Your task to perform on an android device: Search for Italian restaurants on Maps Image 0: 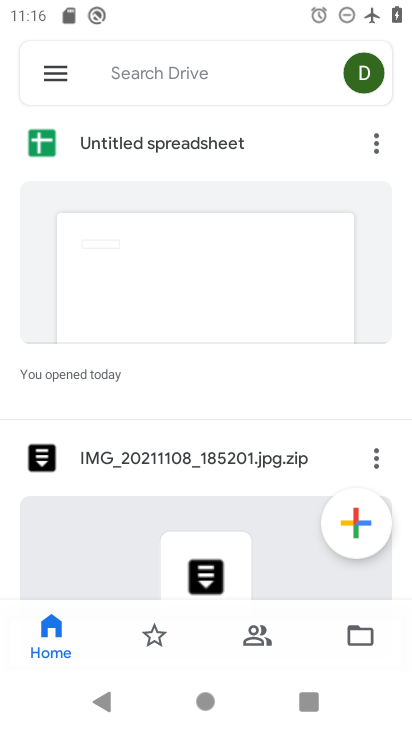
Step 0: press home button
Your task to perform on an android device: Search for Italian restaurants on Maps Image 1: 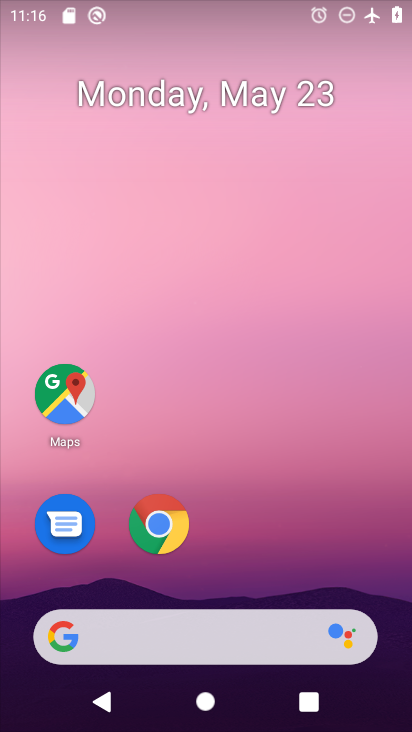
Step 1: click (78, 414)
Your task to perform on an android device: Search for Italian restaurants on Maps Image 2: 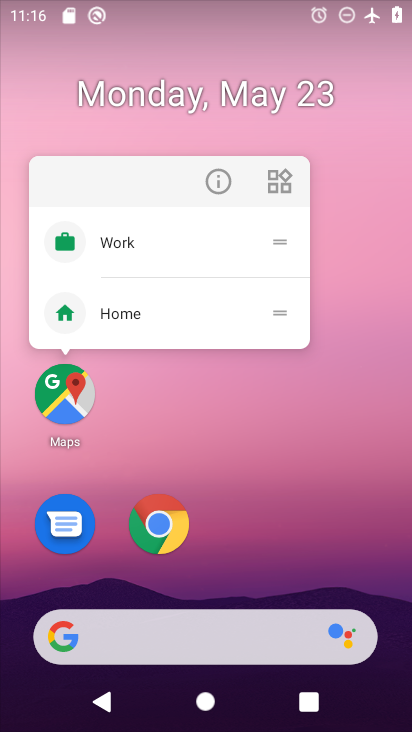
Step 2: click (76, 386)
Your task to perform on an android device: Search for Italian restaurants on Maps Image 3: 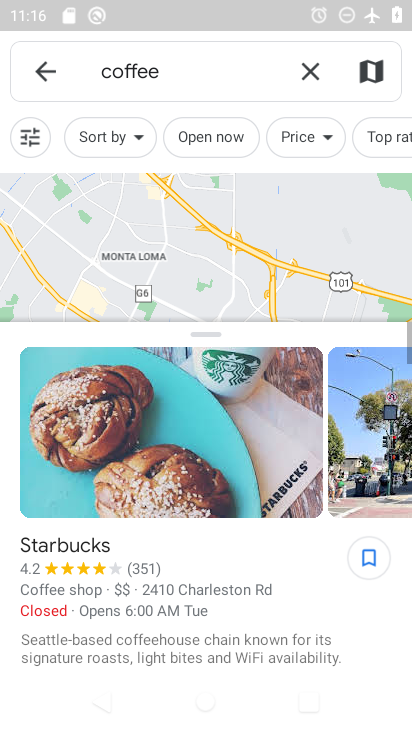
Step 3: click (304, 73)
Your task to perform on an android device: Search for Italian restaurants on Maps Image 4: 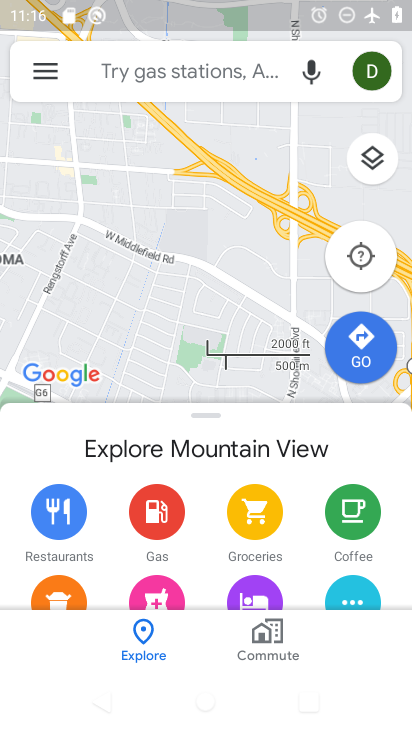
Step 4: click (193, 80)
Your task to perform on an android device: Search for Italian restaurants on Maps Image 5: 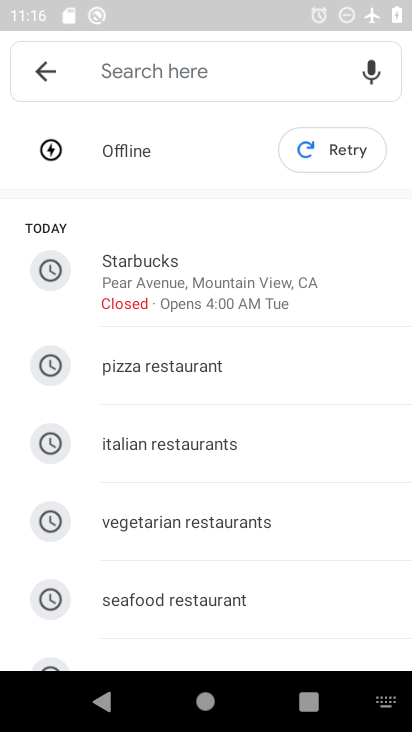
Step 5: type "Italian restaurants"
Your task to perform on an android device: Search for Italian restaurants on Maps Image 6: 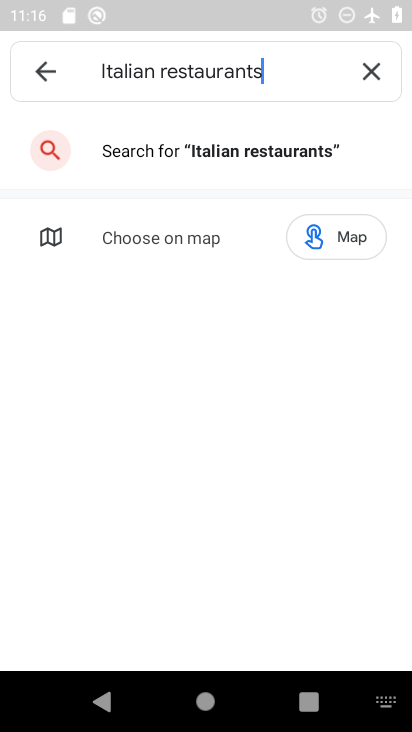
Step 6: task complete